Your task to perform on an android device: Open Maps and search for coffee Image 0: 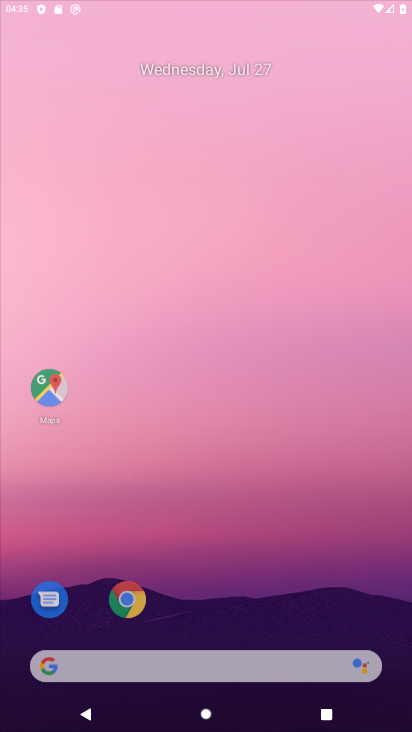
Step 0: press home button
Your task to perform on an android device: Open Maps and search for coffee Image 1: 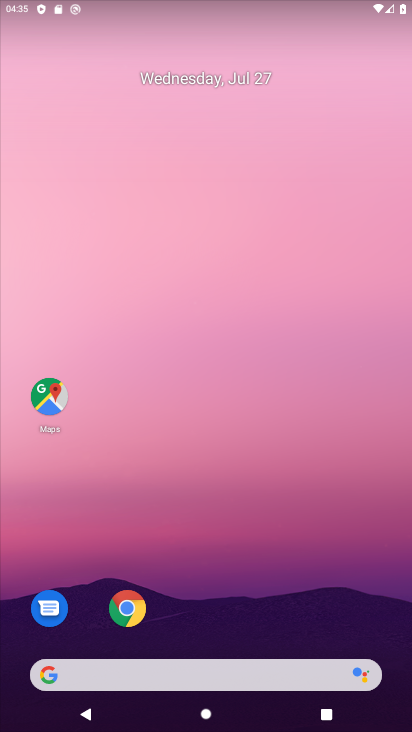
Step 1: drag from (215, 626) to (167, 7)
Your task to perform on an android device: Open Maps and search for coffee Image 2: 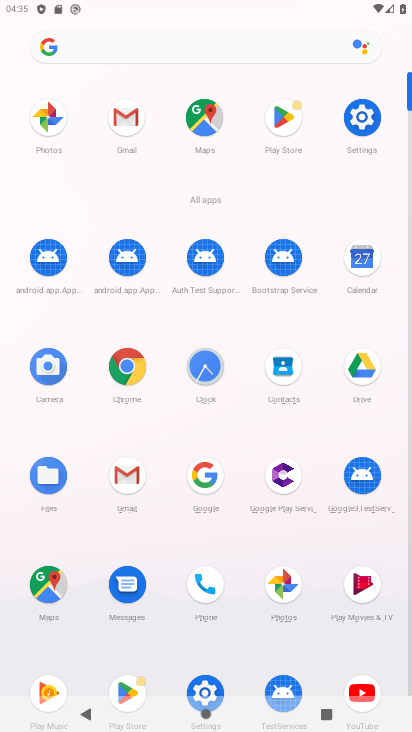
Step 2: click (204, 115)
Your task to perform on an android device: Open Maps and search for coffee Image 3: 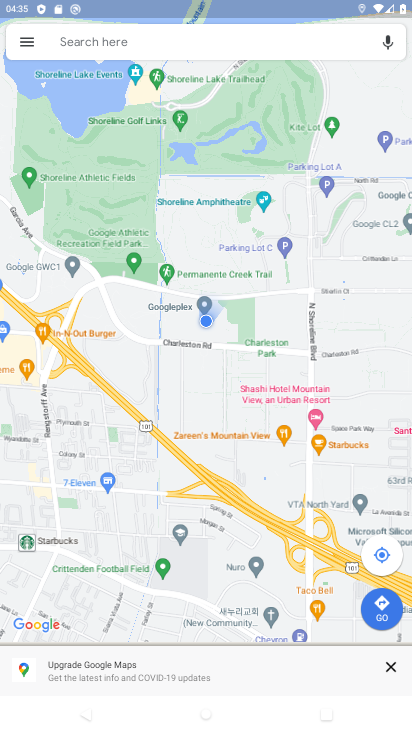
Step 3: click (118, 42)
Your task to perform on an android device: Open Maps and search for coffee Image 4: 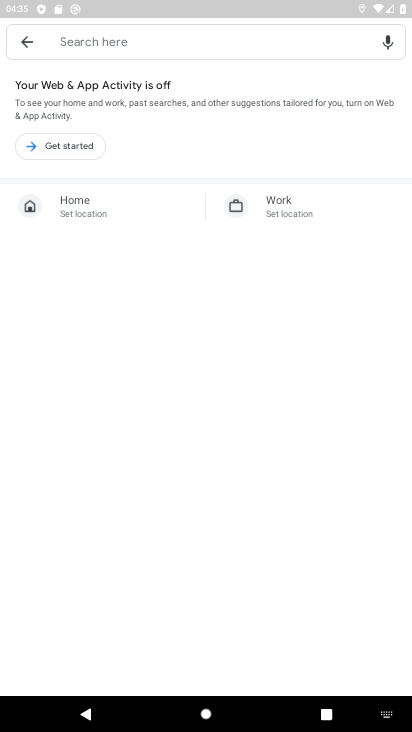
Step 4: click (72, 142)
Your task to perform on an android device: Open Maps and search for coffee Image 5: 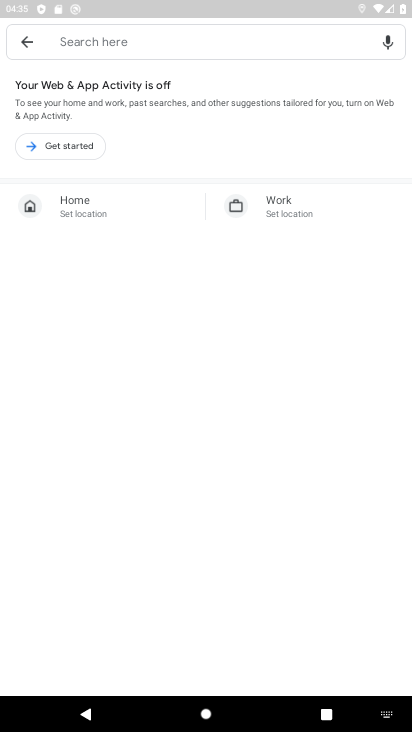
Step 5: click (34, 145)
Your task to perform on an android device: Open Maps and search for coffee Image 6: 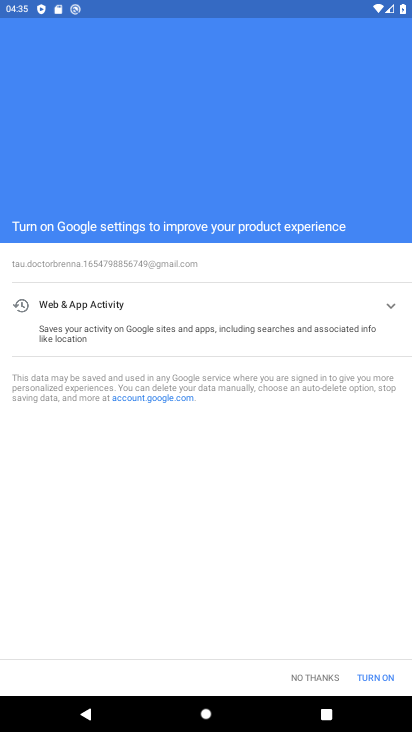
Step 6: click (389, 309)
Your task to perform on an android device: Open Maps and search for coffee Image 7: 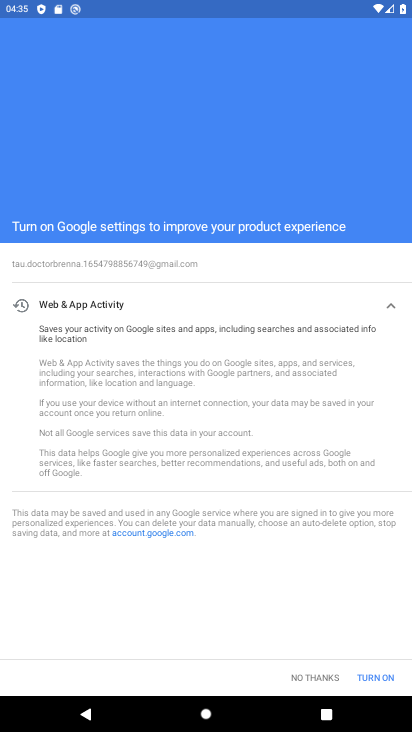
Step 7: click (373, 679)
Your task to perform on an android device: Open Maps and search for coffee Image 8: 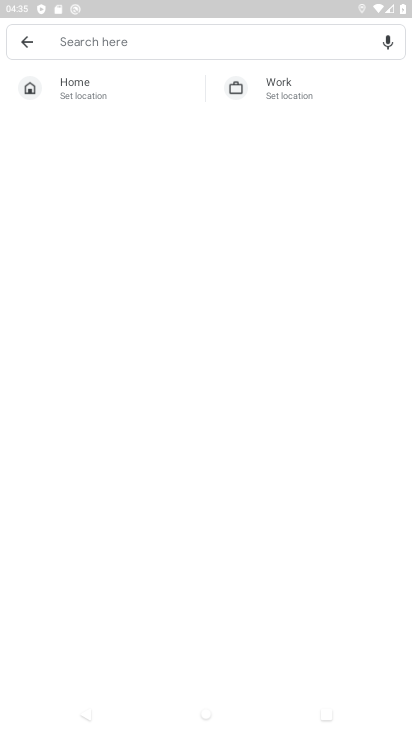
Step 8: click (106, 38)
Your task to perform on an android device: Open Maps and search for coffee Image 9: 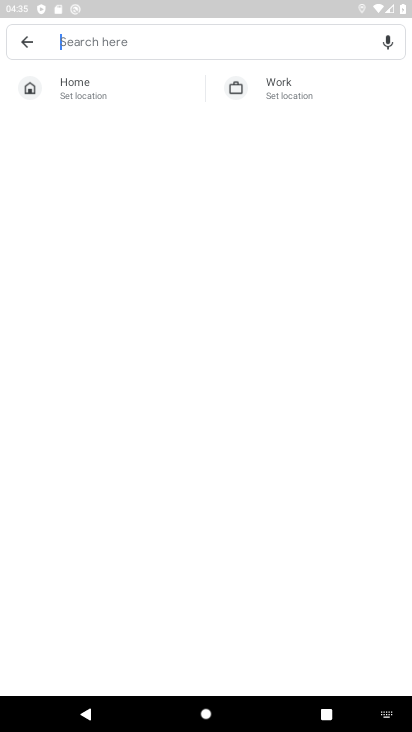
Step 9: click (23, 44)
Your task to perform on an android device: Open Maps and search for coffee Image 10: 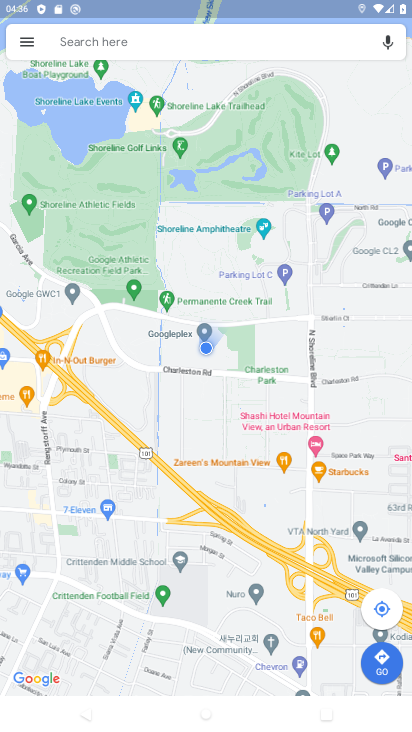
Step 10: click (140, 33)
Your task to perform on an android device: Open Maps and search for coffee Image 11: 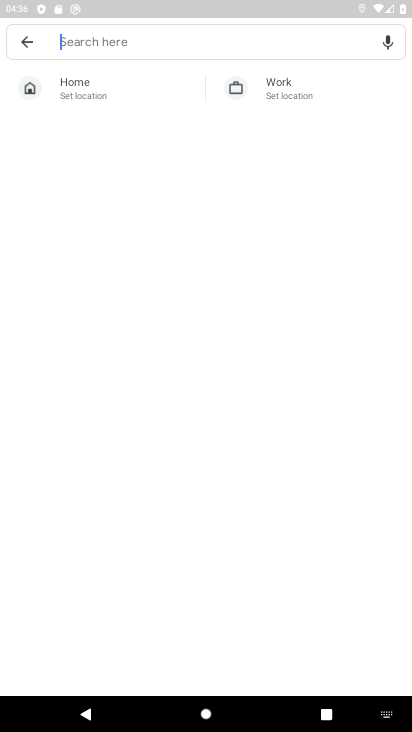
Step 11: click (125, 41)
Your task to perform on an android device: Open Maps and search for coffee Image 12: 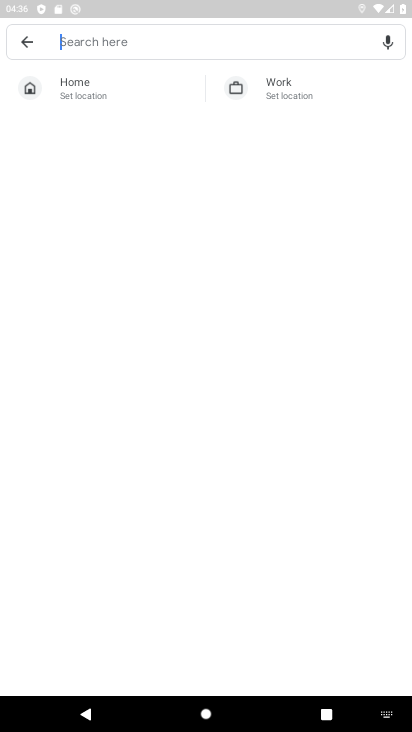
Step 12: press enter
Your task to perform on an android device: Open Maps and search for coffee Image 13: 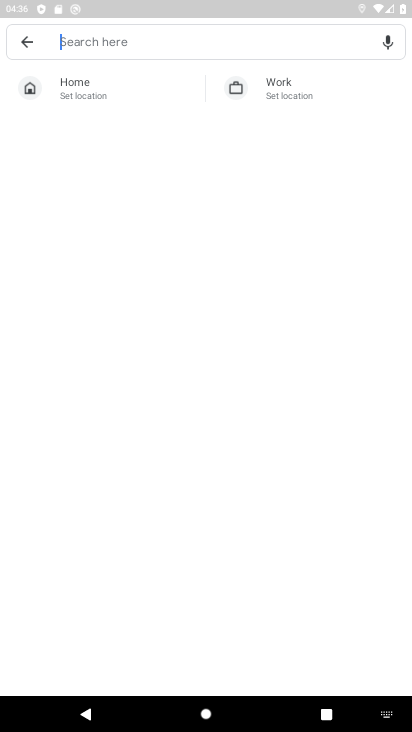
Step 13: type "coffee"
Your task to perform on an android device: Open Maps and search for coffee Image 14: 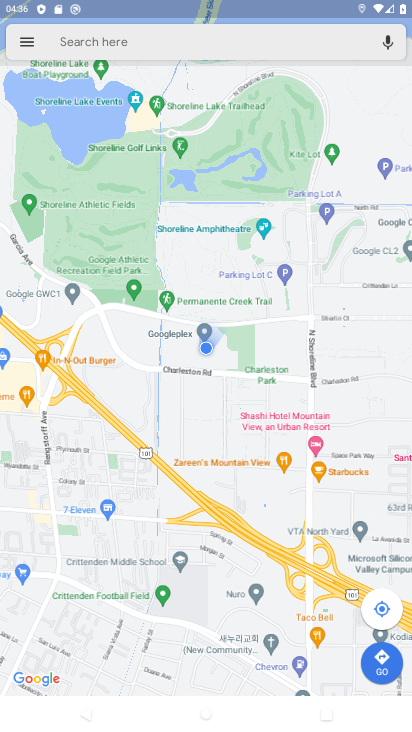
Step 14: click (177, 42)
Your task to perform on an android device: Open Maps and search for coffee Image 15: 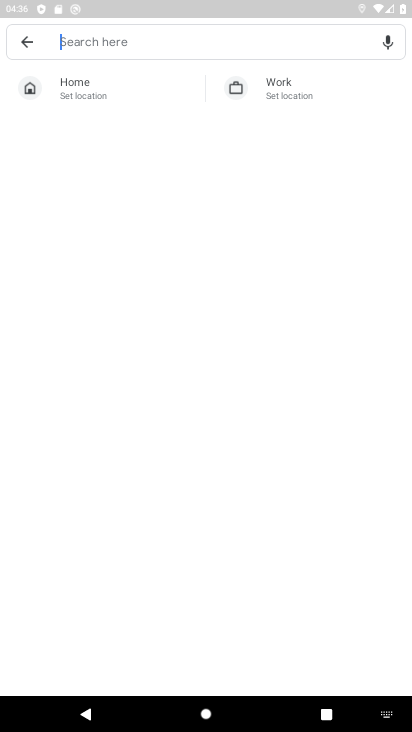
Step 15: press enter
Your task to perform on an android device: Open Maps and search for coffee Image 16: 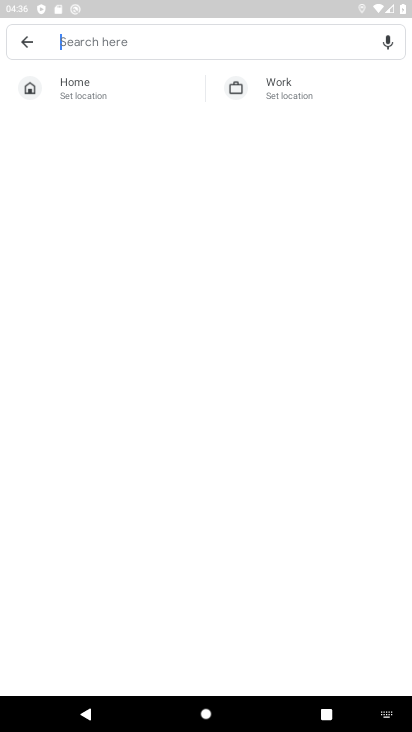
Step 16: type "coffee"
Your task to perform on an android device: Open Maps and search for coffee Image 17: 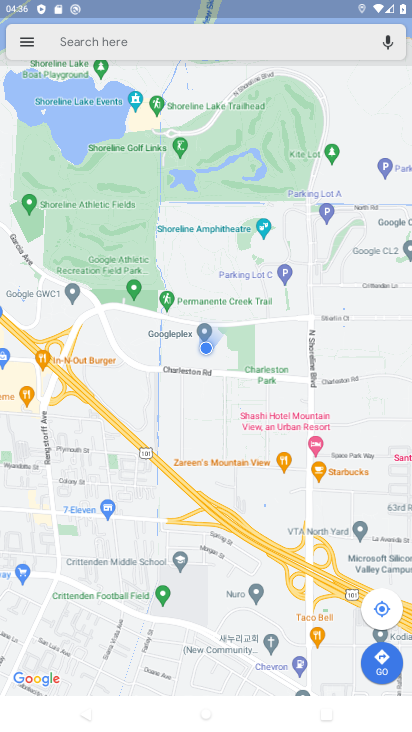
Step 17: task complete